Your task to perform on an android device: Check the weather Image 0: 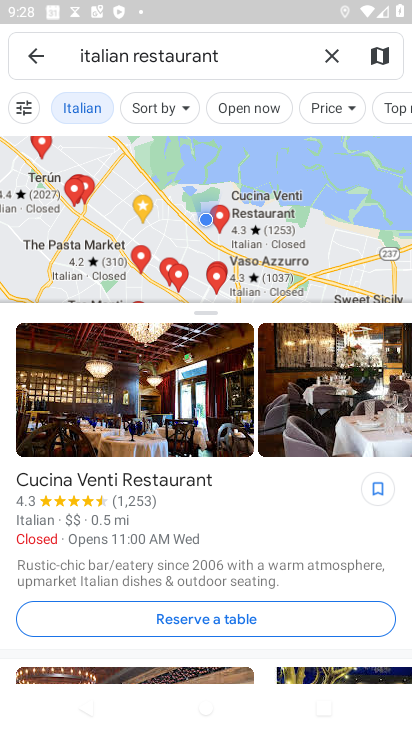
Step 0: press home button
Your task to perform on an android device: Check the weather Image 1: 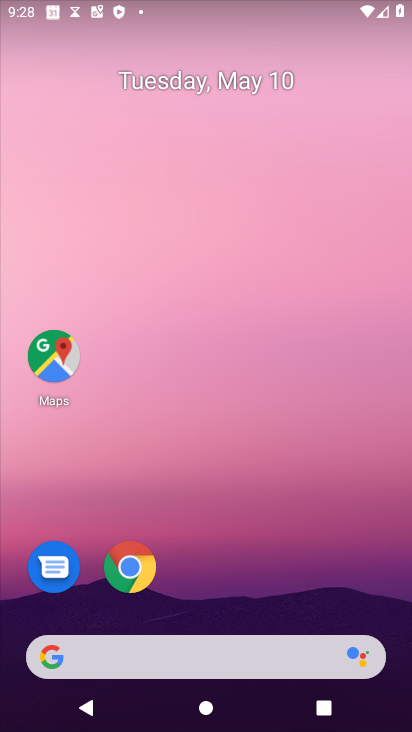
Step 1: click (156, 660)
Your task to perform on an android device: Check the weather Image 2: 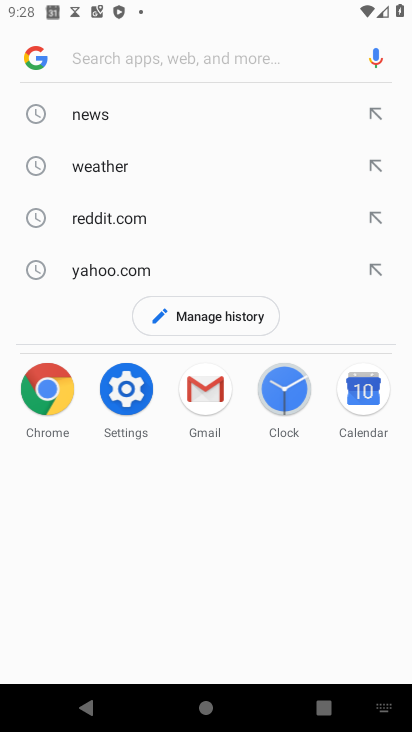
Step 2: click (101, 157)
Your task to perform on an android device: Check the weather Image 3: 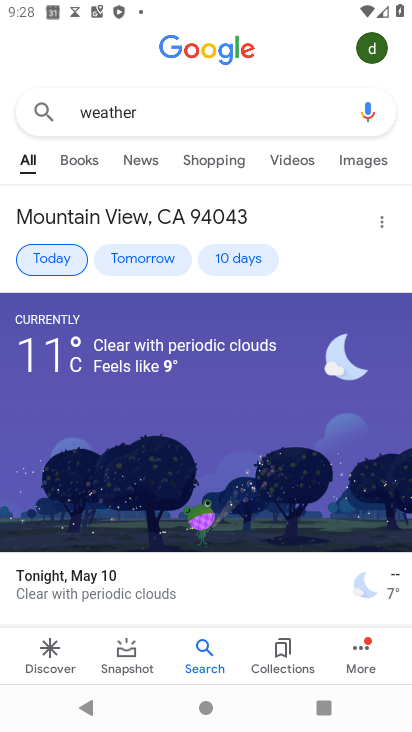
Step 3: task complete